Your task to perform on an android device: When is my next appointment? Image 0: 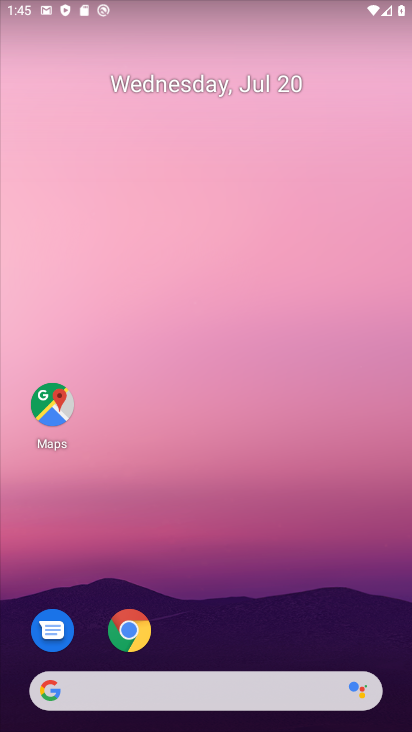
Step 0: drag from (198, 699) to (265, 195)
Your task to perform on an android device: When is my next appointment? Image 1: 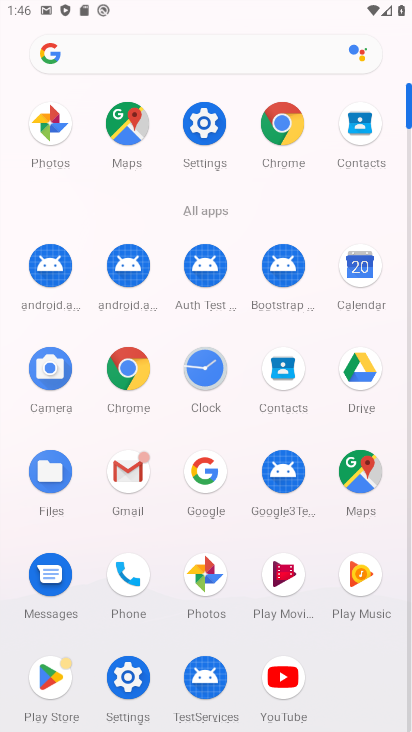
Step 1: click (359, 265)
Your task to perform on an android device: When is my next appointment? Image 2: 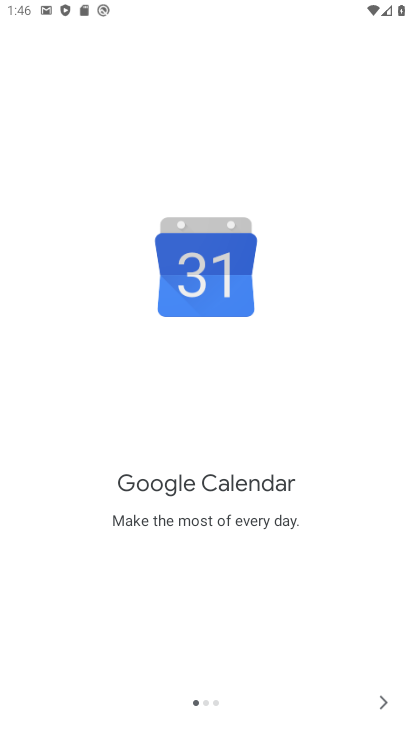
Step 2: click (386, 701)
Your task to perform on an android device: When is my next appointment? Image 3: 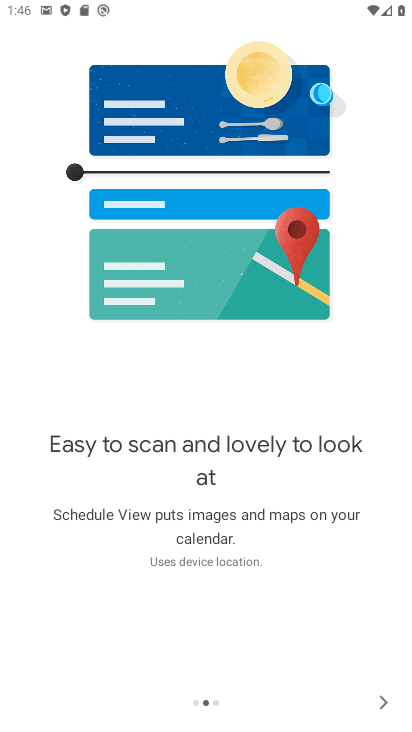
Step 3: click (386, 701)
Your task to perform on an android device: When is my next appointment? Image 4: 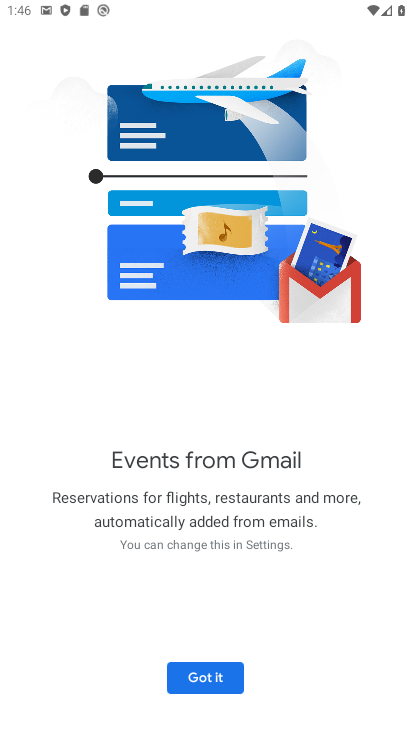
Step 4: click (212, 682)
Your task to perform on an android device: When is my next appointment? Image 5: 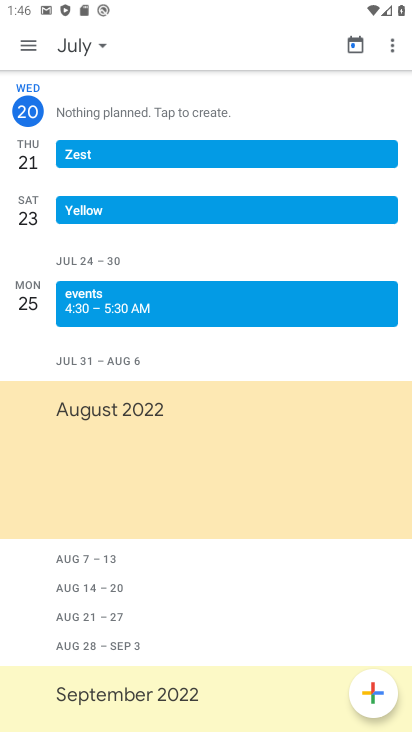
Step 5: click (103, 43)
Your task to perform on an android device: When is my next appointment? Image 6: 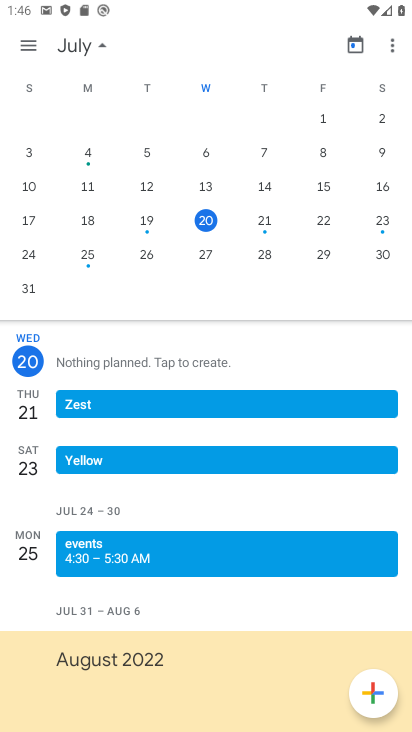
Step 6: click (262, 222)
Your task to perform on an android device: When is my next appointment? Image 7: 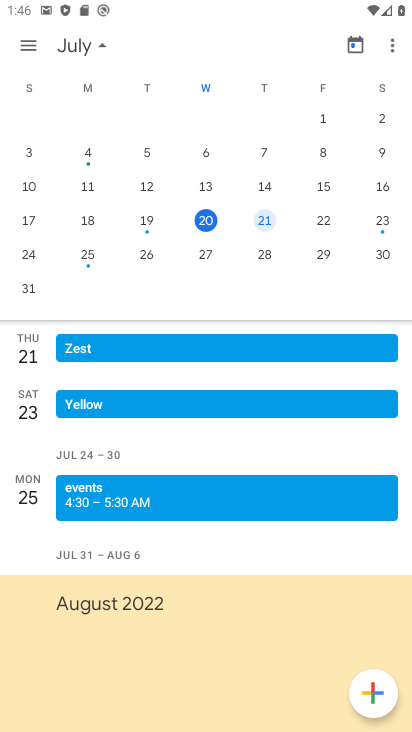
Step 7: click (37, 45)
Your task to perform on an android device: When is my next appointment? Image 8: 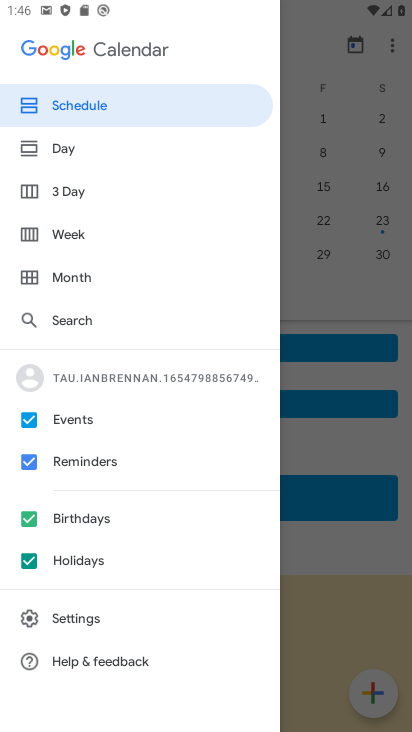
Step 8: click (103, 105)
Your task to perform on an android device: When is my next appointment? Image 9: 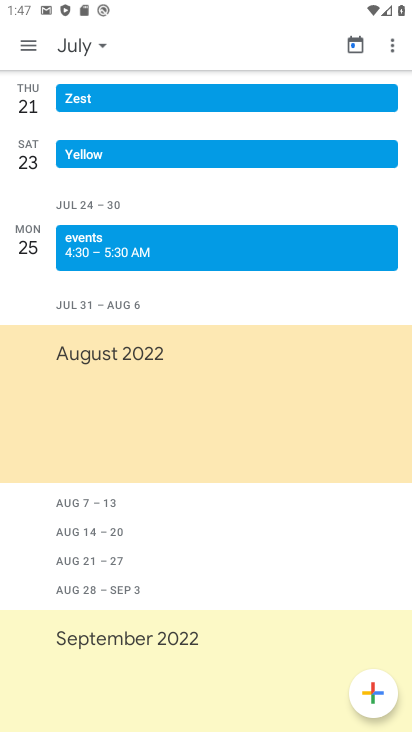
Step 9: task complete